Your task to perform on an android device: add a contact Image 0: 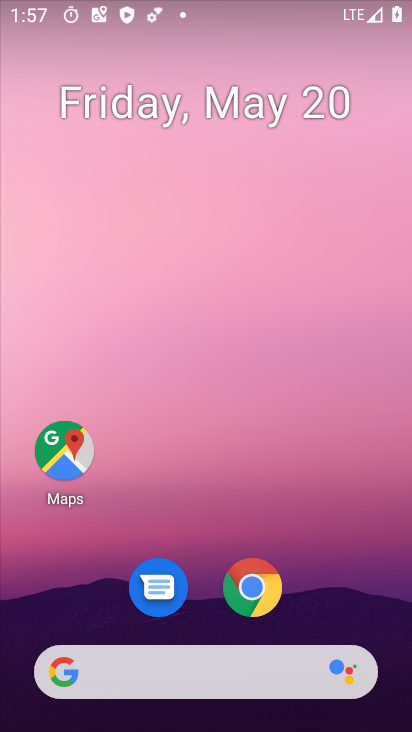
Step 0: drag from (345, 589) to (248, 164)
Your task to perform on an android device: add a contact Image 1: 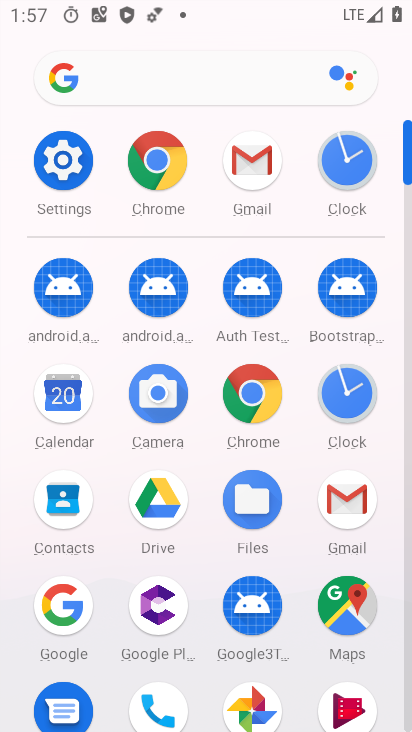
Step 1: click (71, 492)
Your task to perform on an android device: add a contact Image 2: 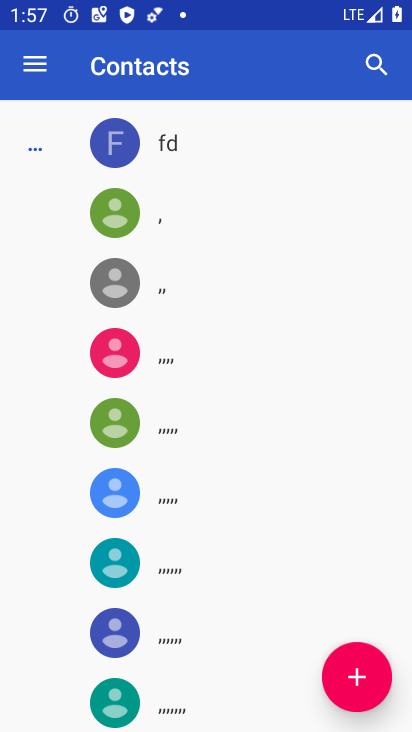
Step 2: click (362, 673)
Your task to perform on an android device: add a contact Image 3: 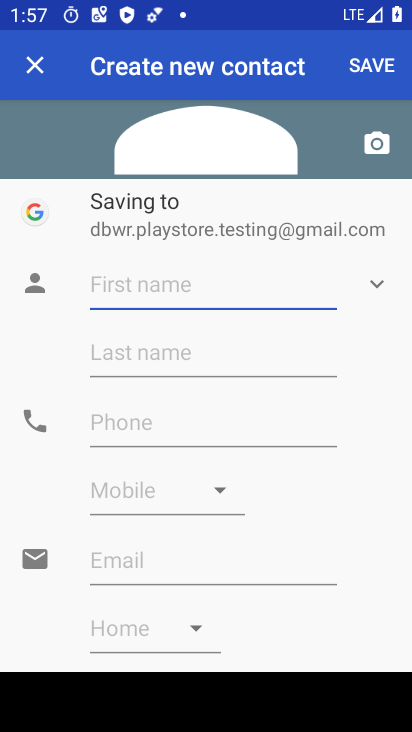
Step 3: type "sthiti"
Your task to perform on an android device: add a contact Image 4: 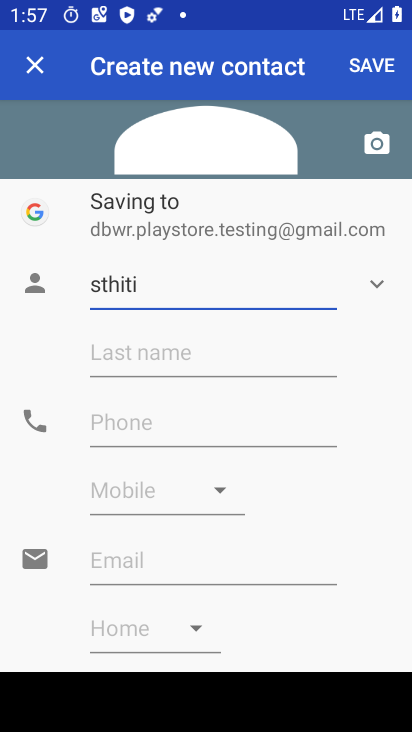
Step 4: click (376, 56)
Your task to perform on an android device: add a contact Image 5: 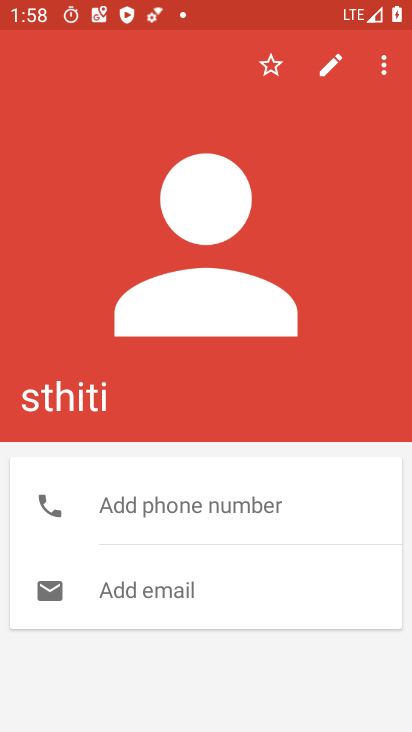
Step 5: task complete